Your task to perform on an android device: Is it going to rain today? Image 0: 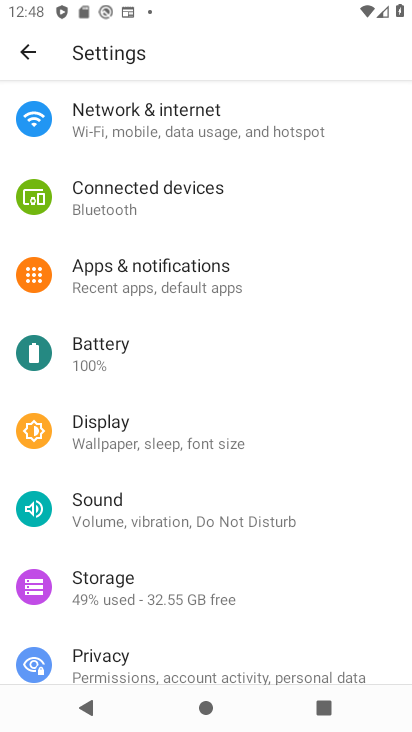
Step 0: press home button
Your task to perform on an android device: Is it going to rain today? Image 1: 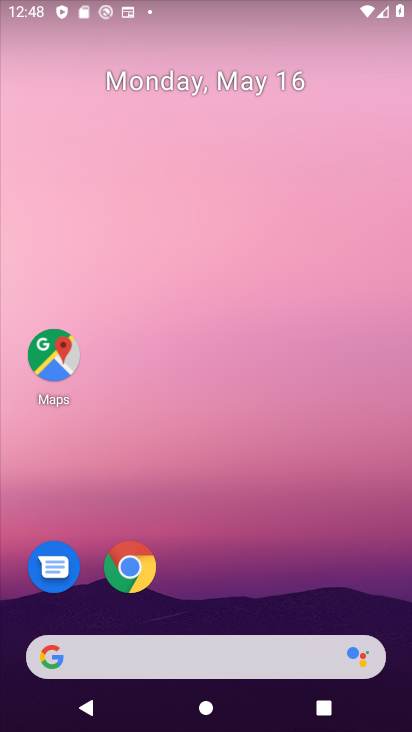
Step 1: click (122, 580)
Your task to perform on an android device: Is it going to rain today? Image 2: 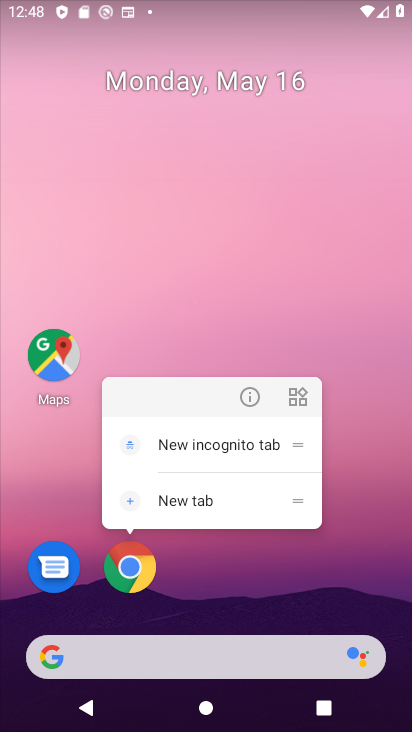
Step 2: click (297, 625)
Your task to perform on an android device: Is it going to rain today? Image 3: 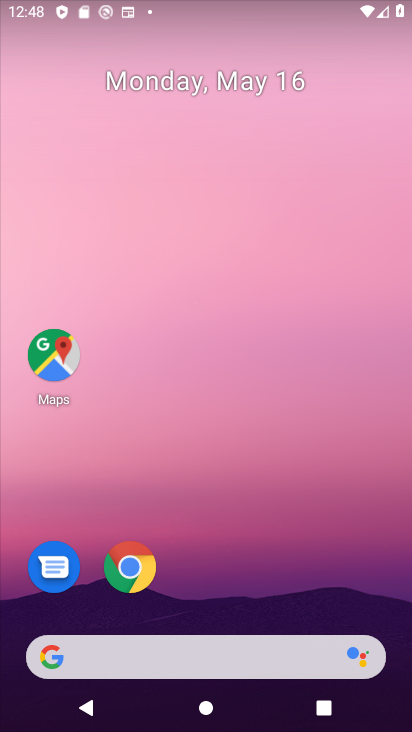
Step 3: click (138, 581)
Your task to perform on an android device: Is it going to rain today? Image 4: 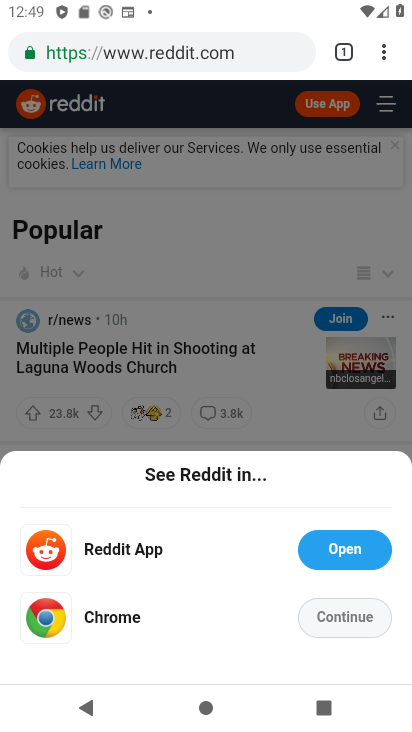
Step 4: click (235, 58)
Your task to perform on an android device: Is it going to rain today? Image 5: 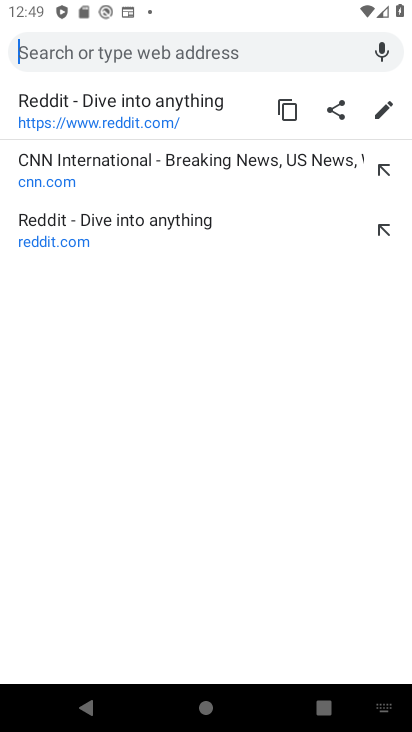
Step 5: click (213, 47)
Your task to perform on an android device: Is it going to rain today? Image 6: 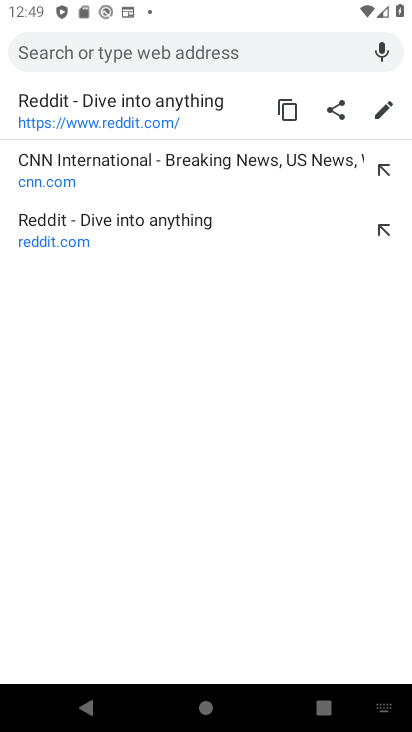
Step 6: type "Is it going to rain today?"
Your task to perform on an android device: Is it going to rain today? Image 7: 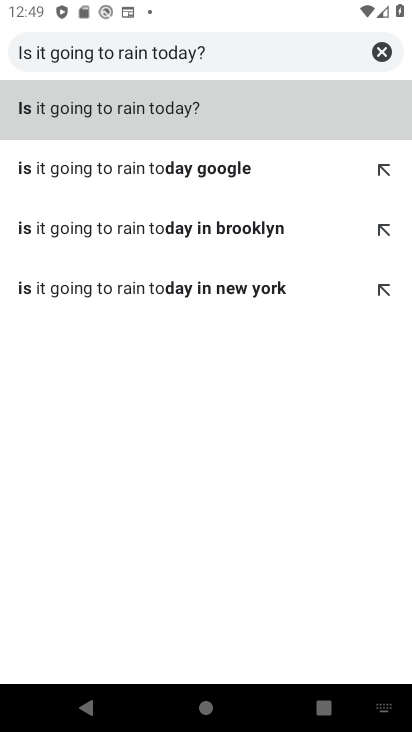
Step 7: click (180, 109)
Your task to perform on an android device: Is it going to rain today? Image 8: 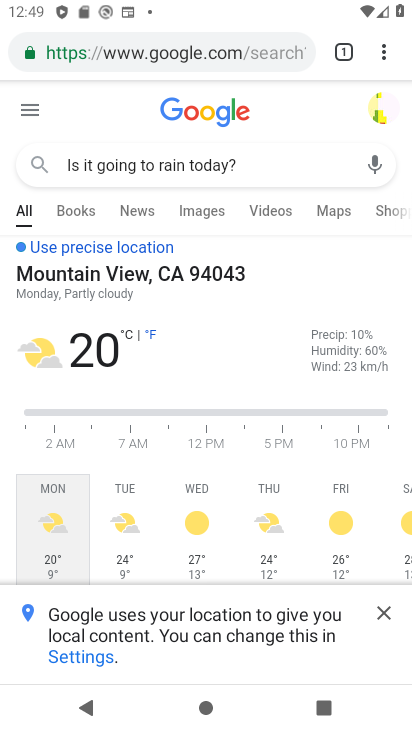
Step 8: click (385, 622)
Your task to perform on an android device: Is it going to rain today? Image 9: 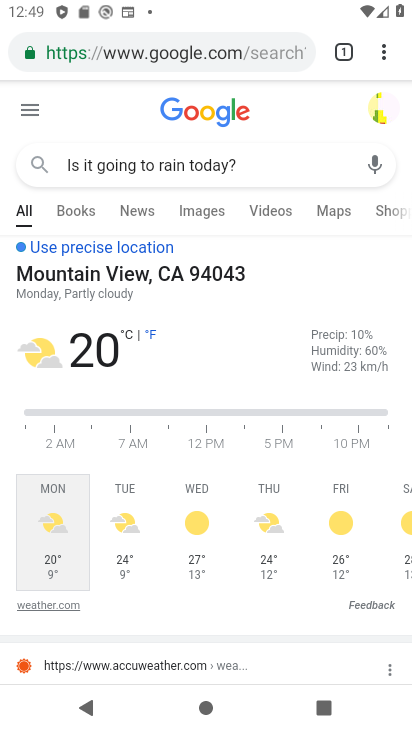
Step 9: task complete